Your task to perform on an android device: open chrome and create a bookmark for the current page Image 0: 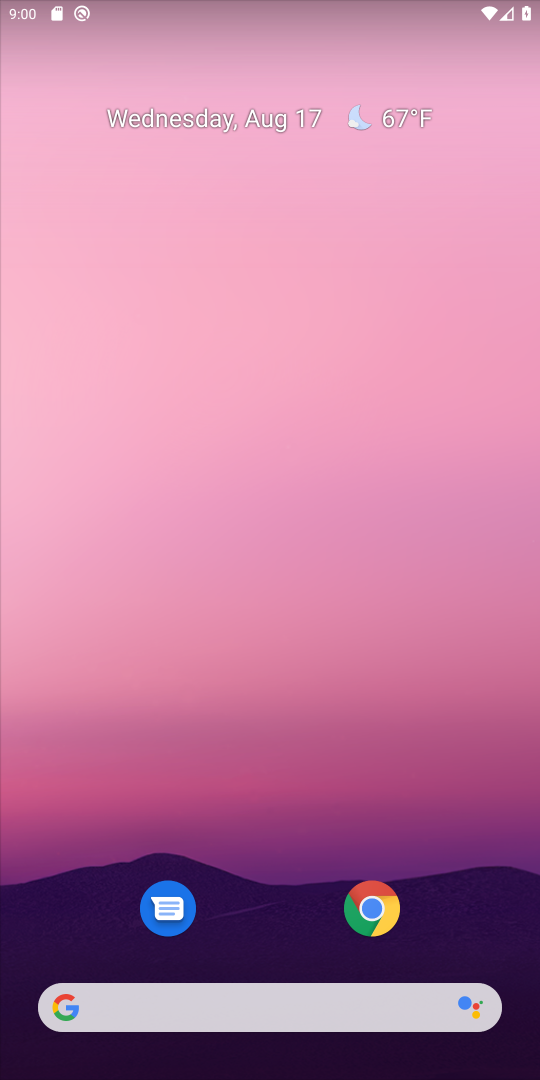
Step 0: drag from (271, 929) to (299, 117)
Your task to perform on an android device: open chrome and create a bookmark for the current page Image 1: 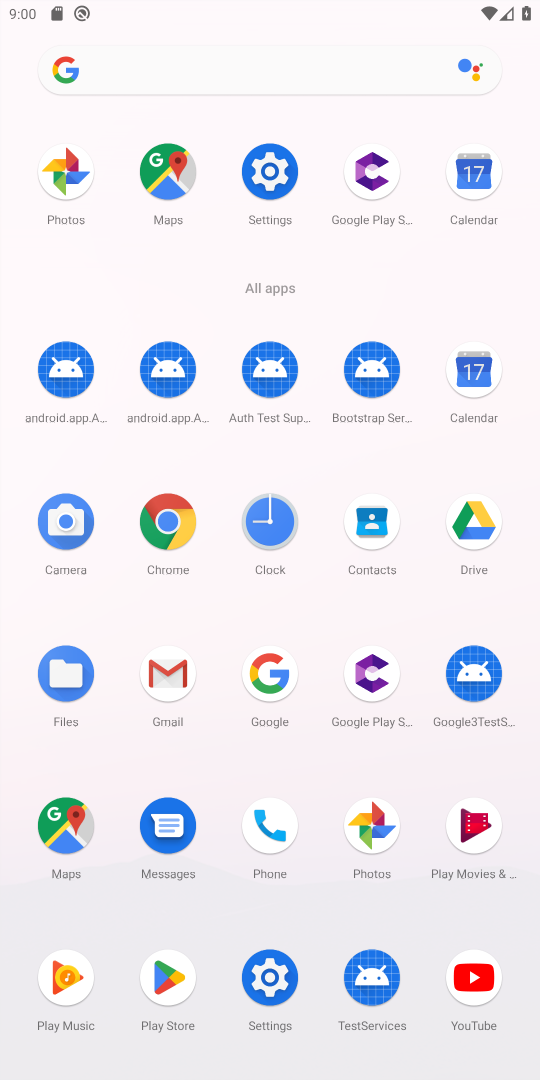
Step 1: click (171, 523)
Your task to perform on an android device: open chrome and create a bookmark for the current page Image 2: 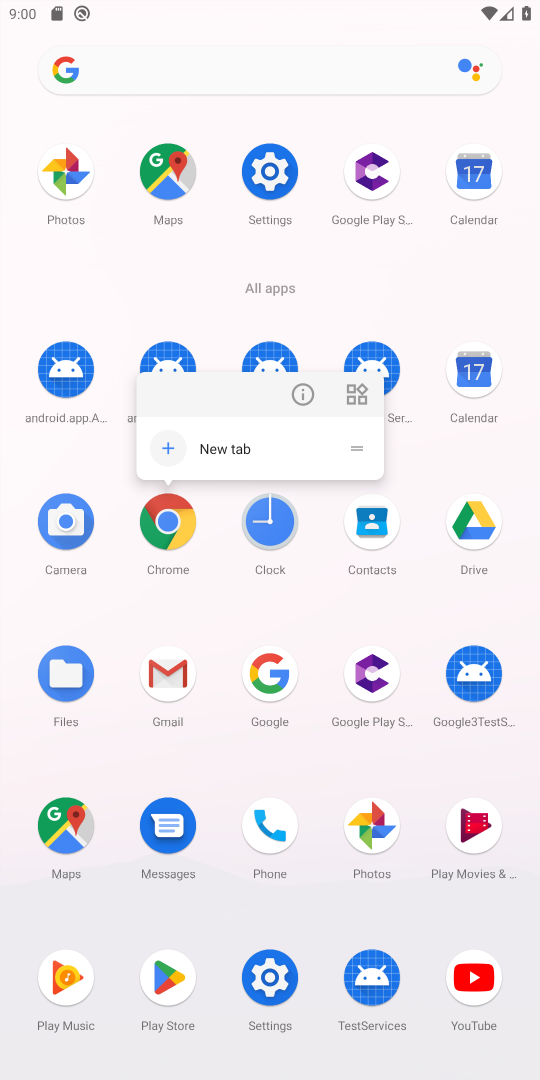
Step 2: click (171, 523)
Your task to perform on an android device: open chrome and create a bookmark for the current page Image 3: 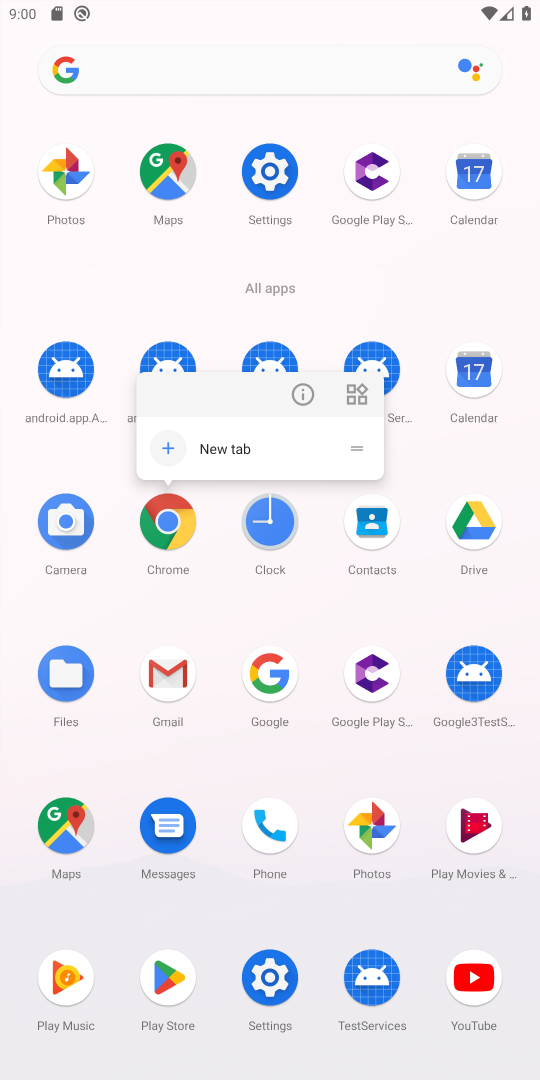
Step 3: click (171, 523)
Your task to perform on an android device: open chrome and create a bookmark for the current page Image 4: 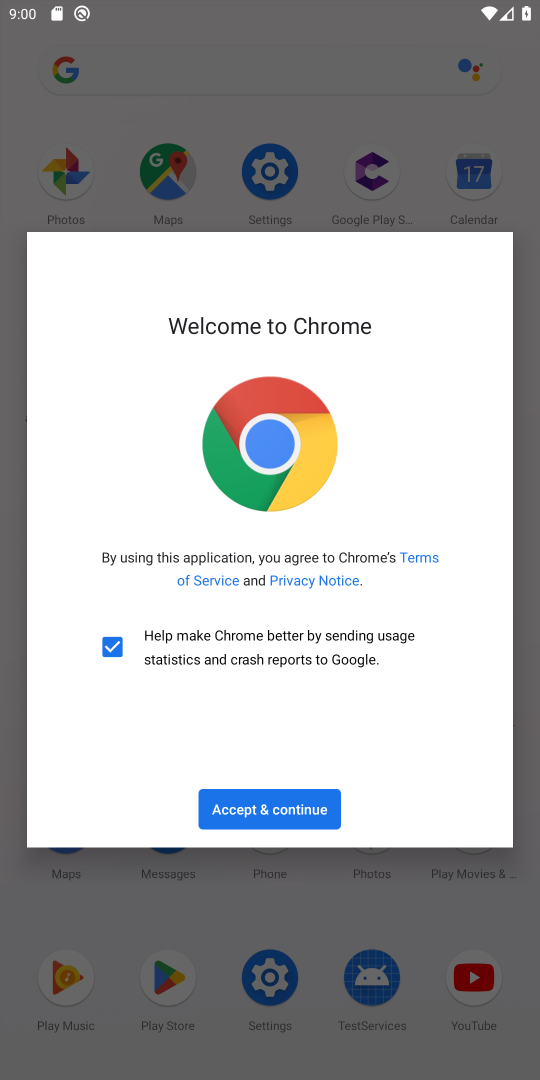
Step 4: click (296, 807)
Your task to perform on an android device: open chrome and create a bookmark for the current page Image 5: 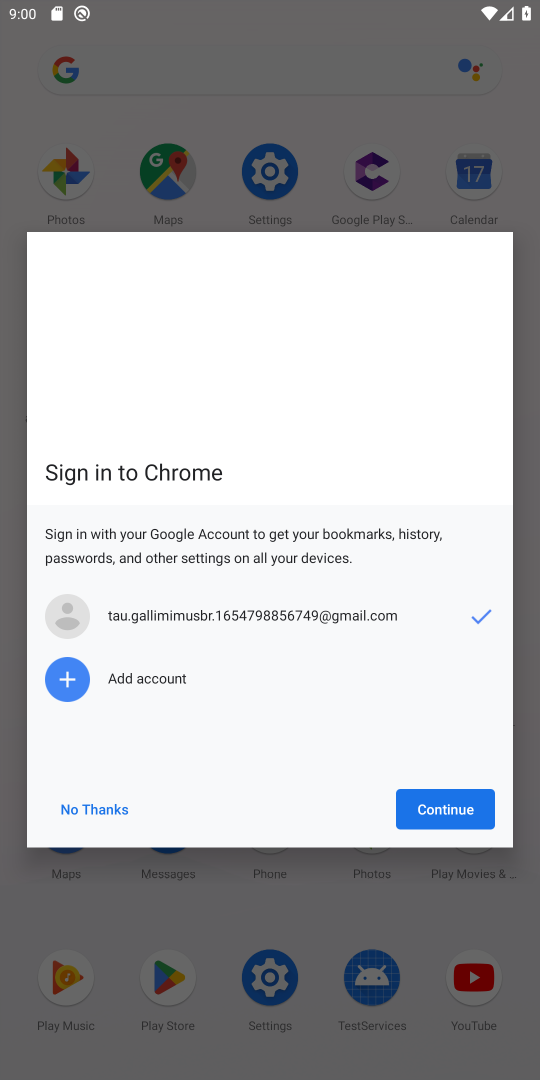
Step 5: click (425, 802)
Your task to perform on an android device: open chrome and create a bookmark for the current page Image 6: 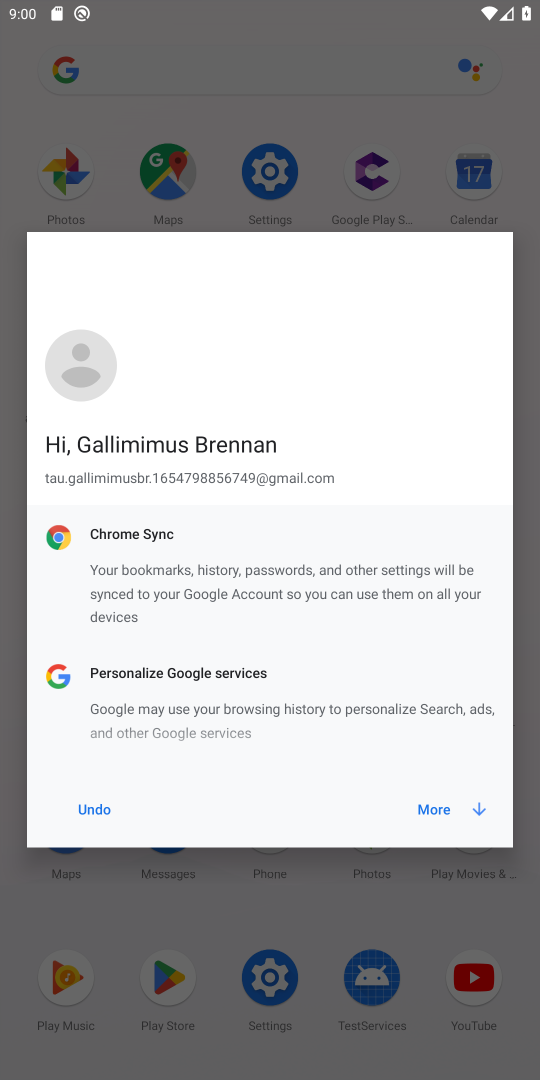
Step 6: click (462, 807)
Your task to perform on an android device: open chrome and create a bookmark for the current page Image 7: 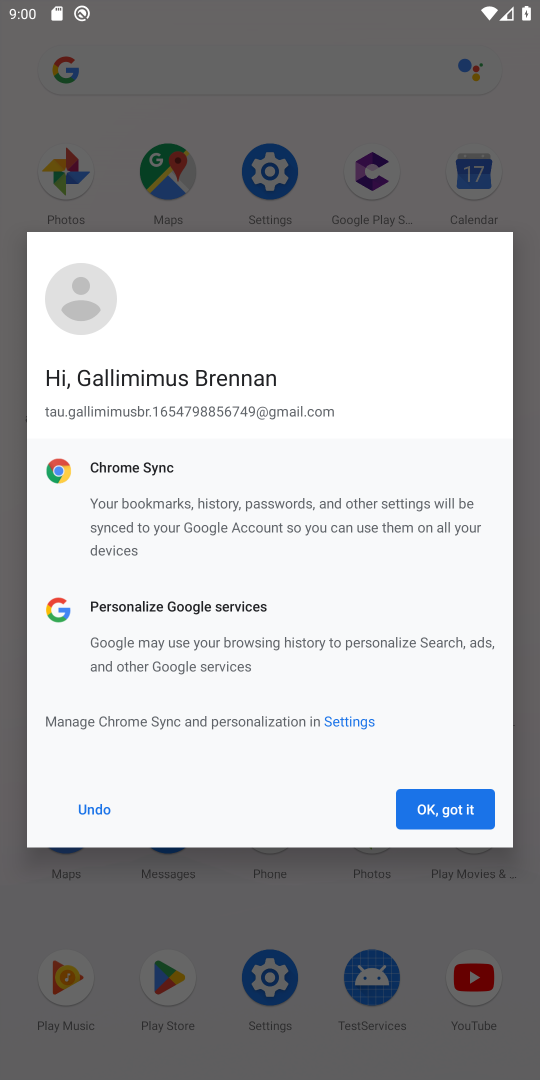
Step 7: click (462, 807)
Your task to perform on an android device: open chrome and create a bookmark for the current page Image 8: 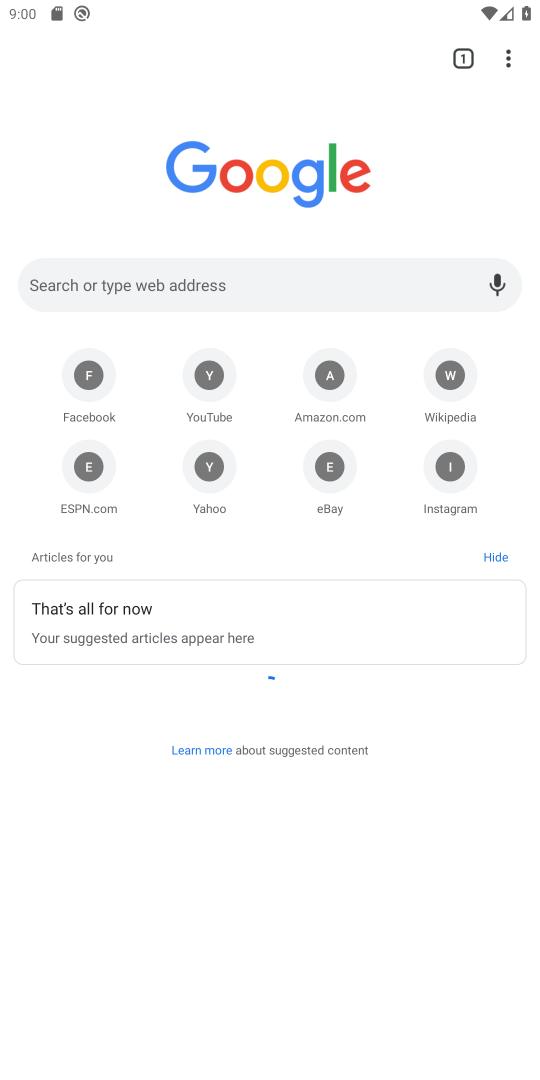
Step 8: task complete